Your task to perform on an android device: Go to display settings Image 0: 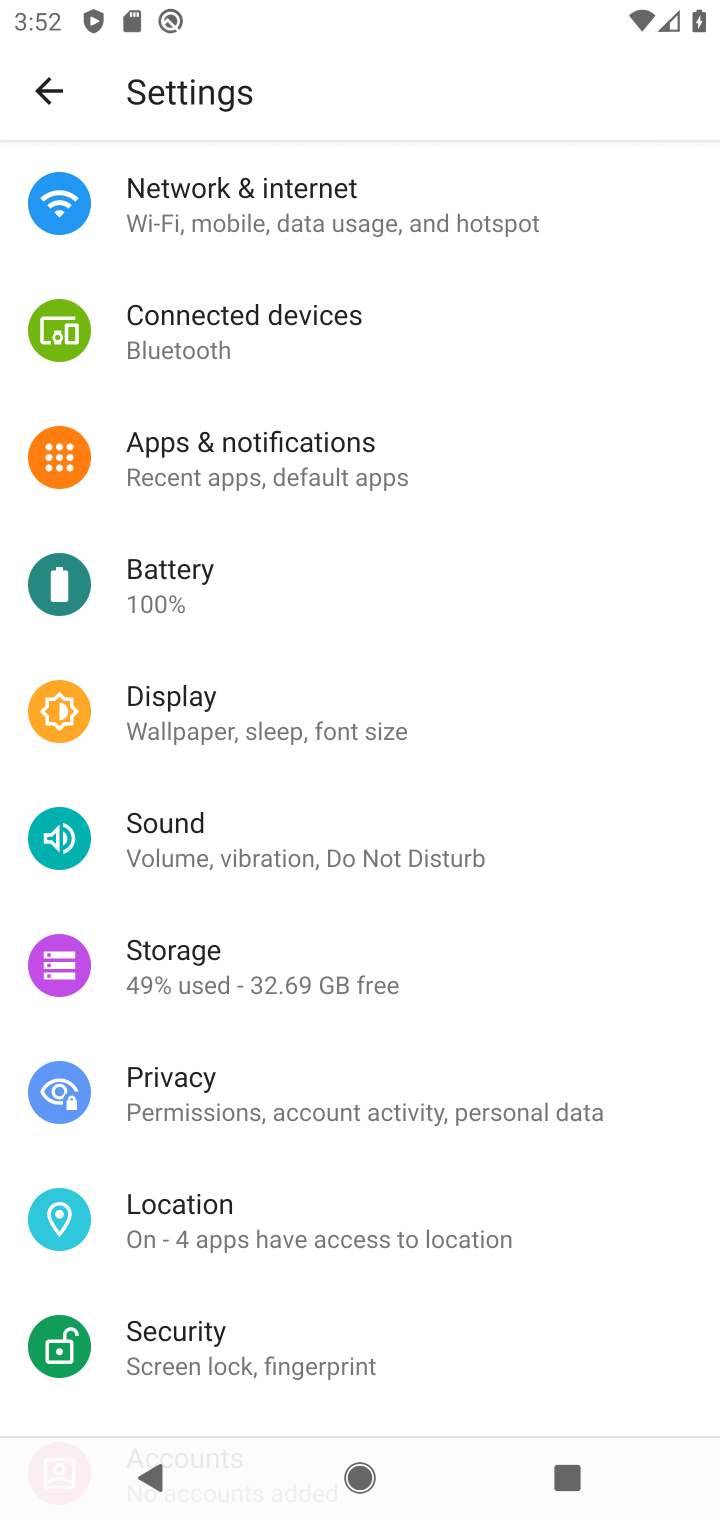
Step 0: press home button
Your task to perform on an android device: Go to display settings Image 1: 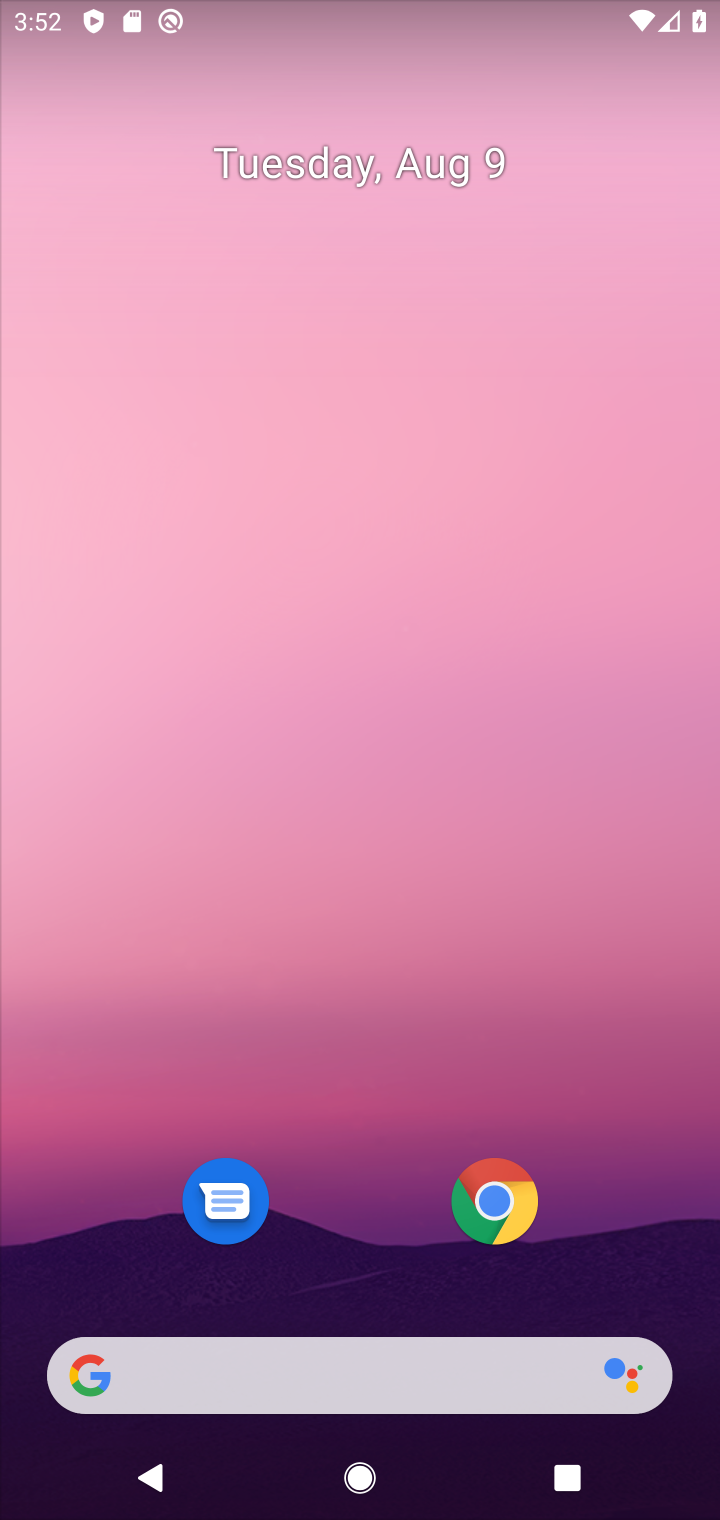
Step 1: drag from (318, 976) to (389, 54)
Your task to perform on an android device: Go to display settings Image 2: 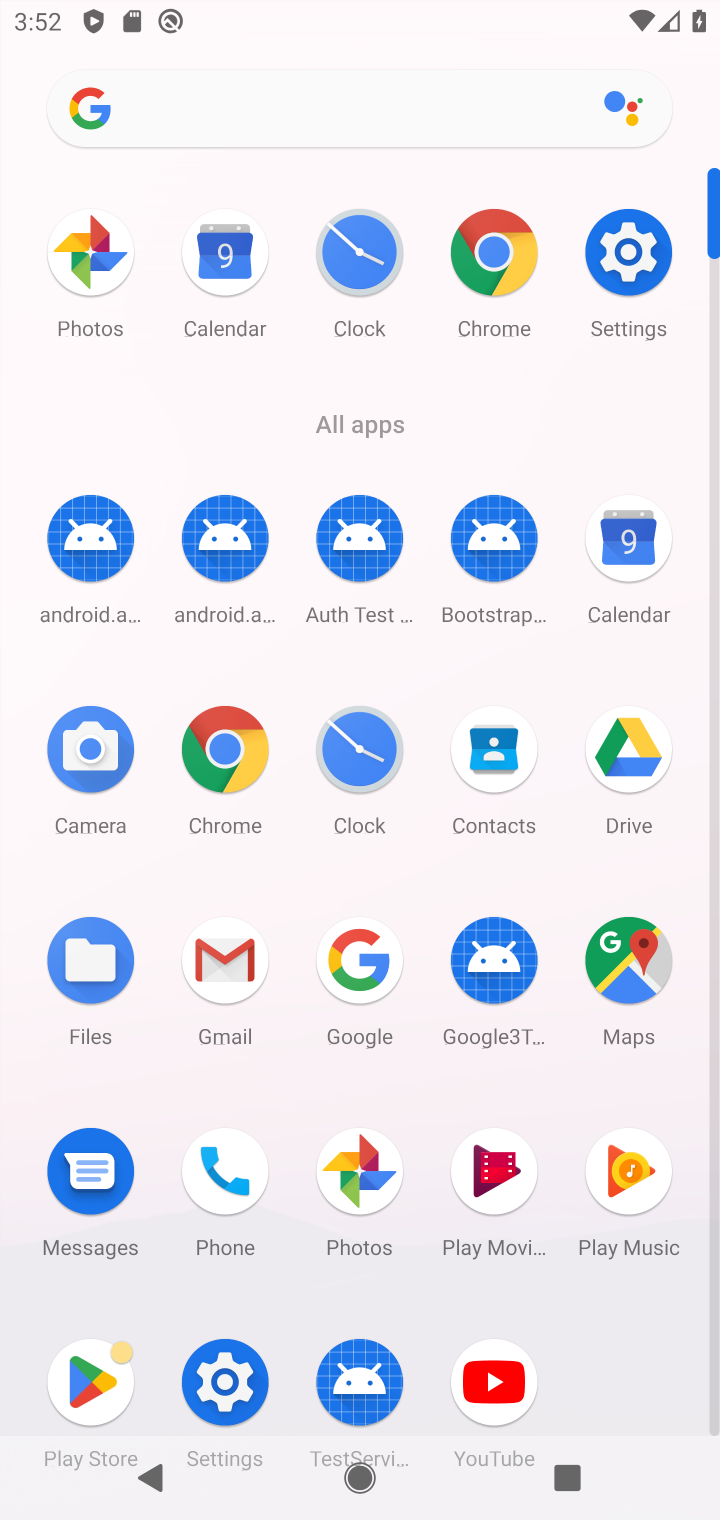
Step 2: click (633, 256)
Your task to perform on an android device: Go to display settings Image 3: 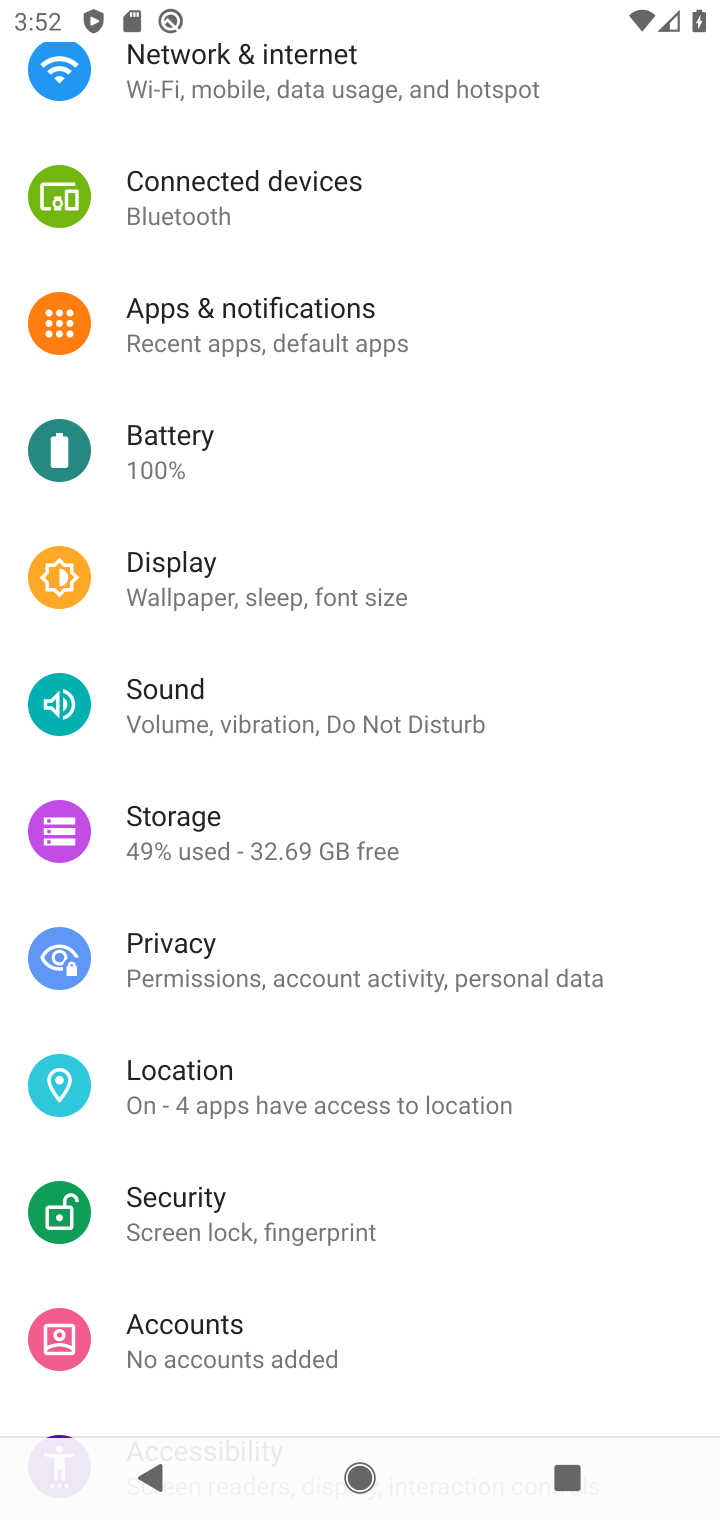
Step 3: click (299, 577)
Your task to perform on an android device: Go to display settings Image 4: 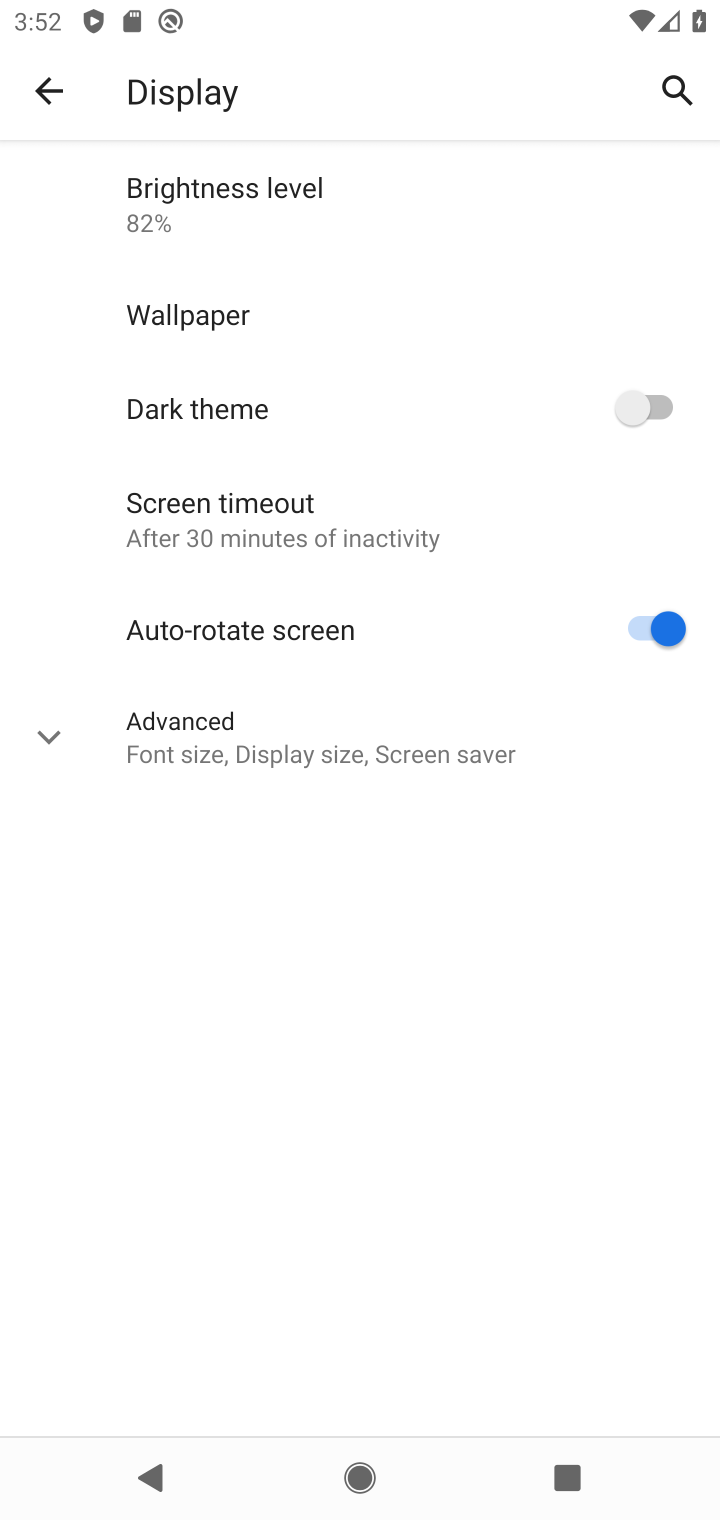
Step 4: task complete